Your task to perform on an android device: toggle wifi Image 0: 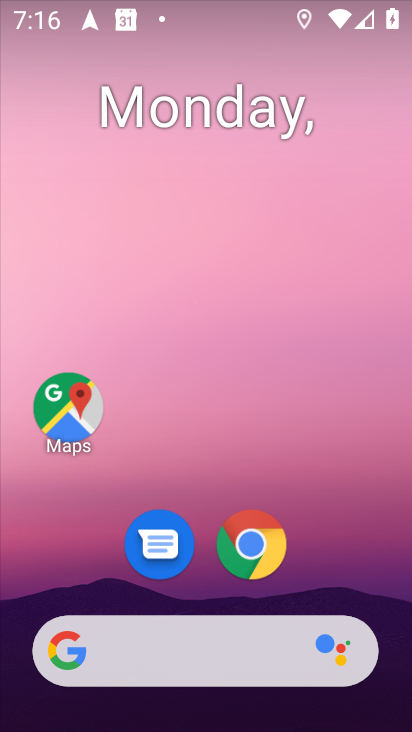
Step 0: drag from (363, 536) to (309, 161)
Your task to perform on an android device: toggle wifi Image 1: 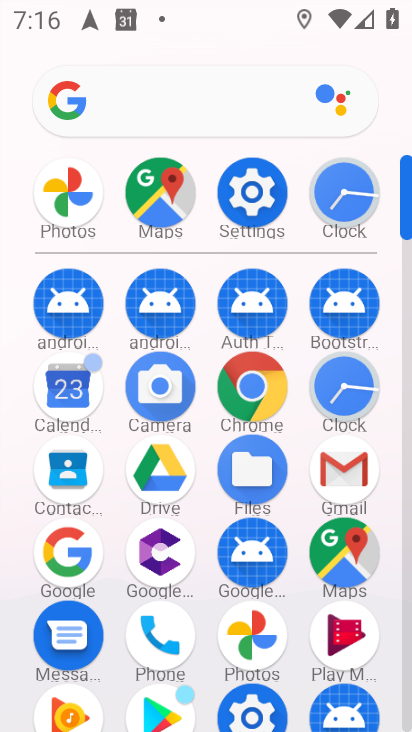
Step 1: click (261, 194)
Your task to perform on an android device: toggle wifi Image 2: 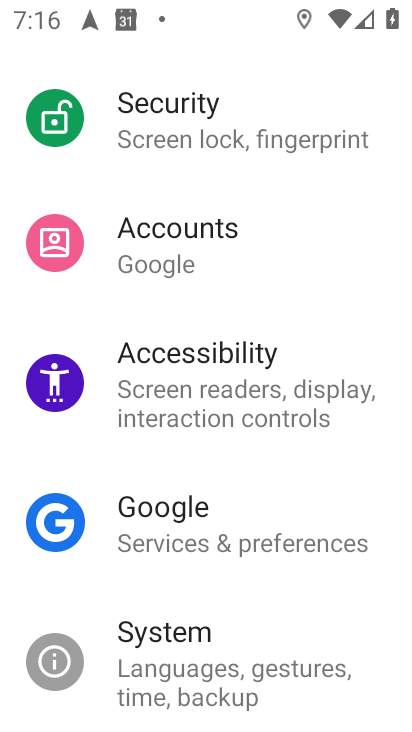
Step 2: drag from (224, 188) to (210, 731)
Your task to perform on an android device: toggle wifi Image 3: 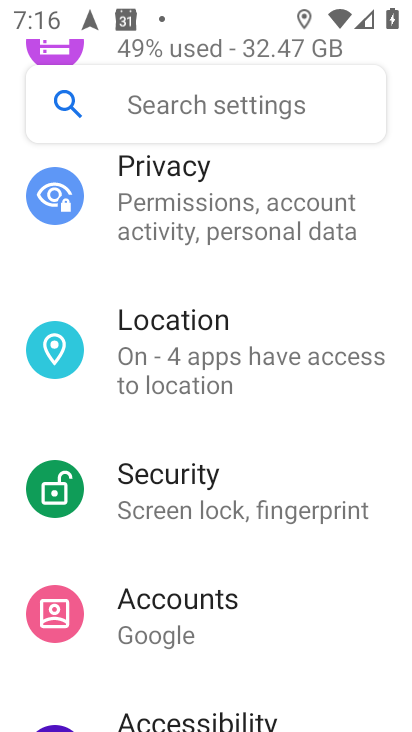
Step 3: drag from (231, 289) to (237, 606)
Your task to perform on an android device: toggle wifi Image 4: 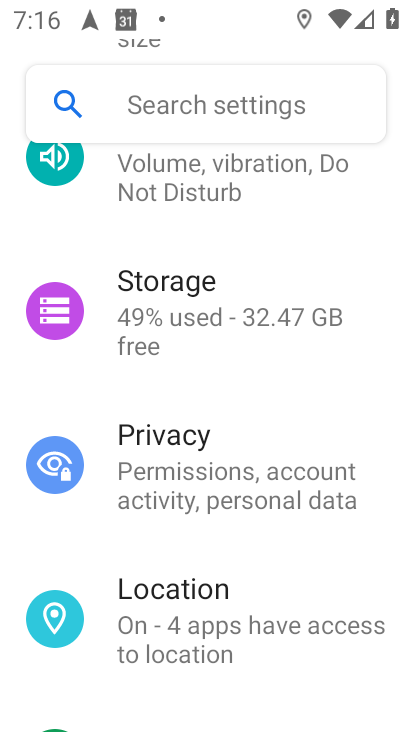
Step 4: drag from (194, 246) to (190, 719)
Your task to perform on an android device: toggle wifi Image 5: 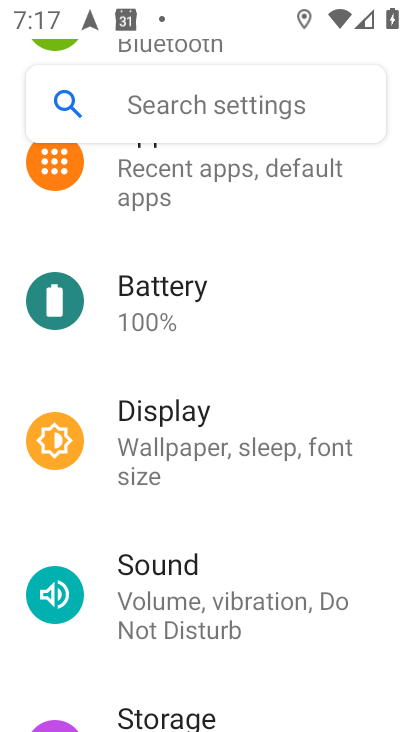
Step 5: drag from (204, 237) to (173, 586)
Your task to perform on an android device: toggle wifi Image 6: 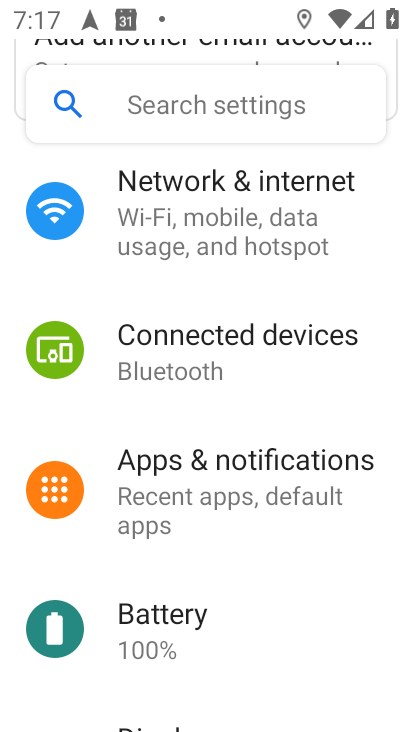
Step 6: click (195, 185)
Your task to perform on an android device: toggle wifi Image 7: 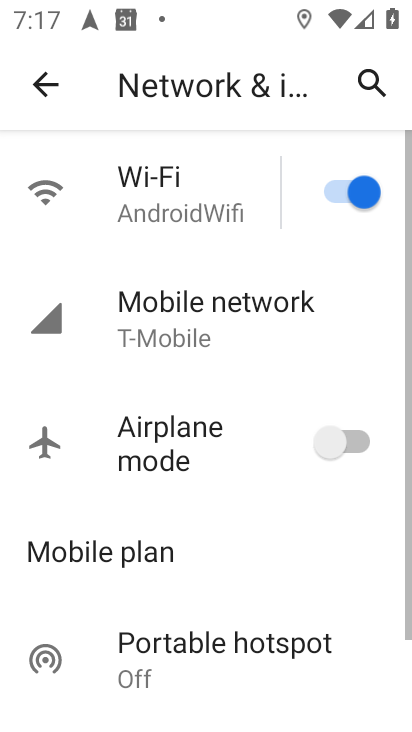
Step 7: click (380, 188)
Your task to perform on an android device: toggle wifi Image 8: 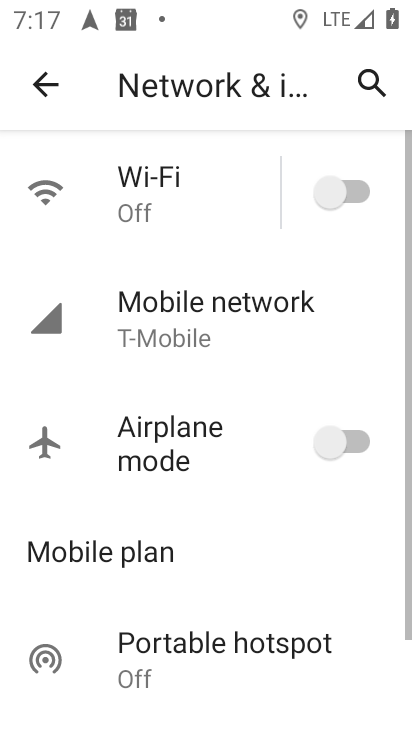
Step 8: task complete